Your task to perform on an android device: Go to internet settings Image 0: 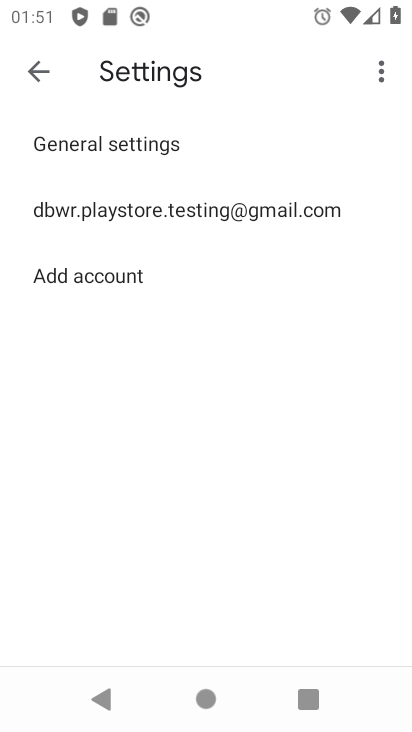
Step 0: press home button
Your task to perform on an android device: Go to internet settings Image 1: 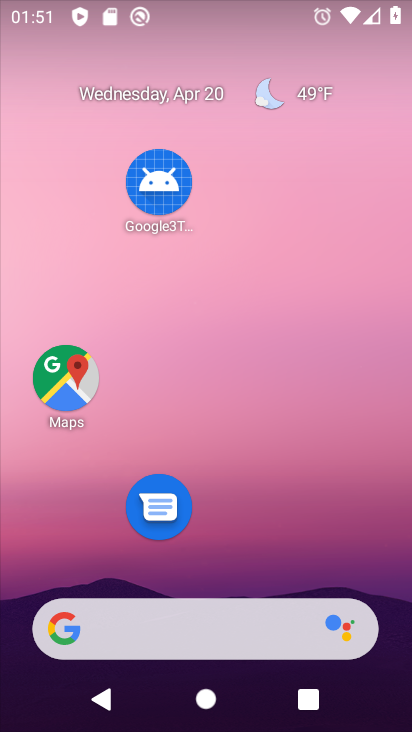
Step 1: drag from (242, 440) to (404, 18)
Your task to perform on an android device: Go to internet settings Image 2: 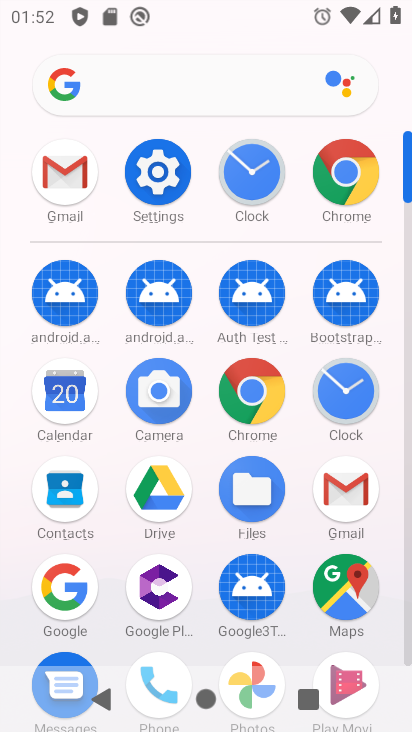
Step 2: click (157, 177)
Your task to perform on an android device: Go to internet settings Image 3: 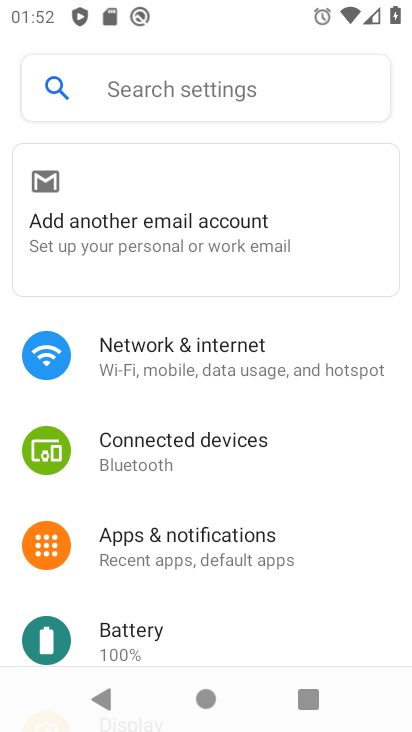
Step 3: click (180, 349)
Your task to perform on an android device: Go to internet settings Image 4: 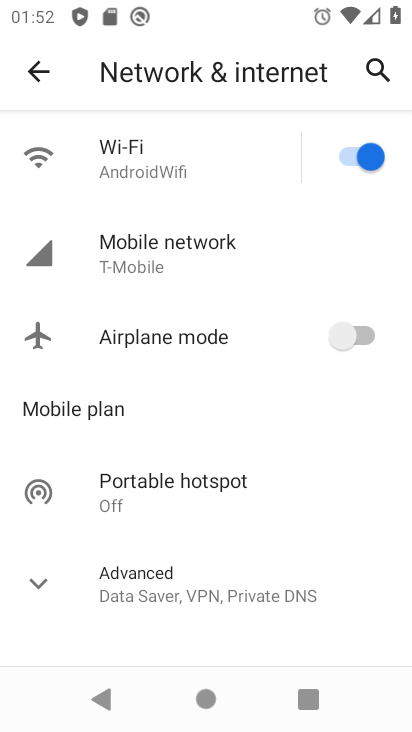
Step 4: click (175, 241)
Your task to perform on an android device: Go to internet settings Image 5: 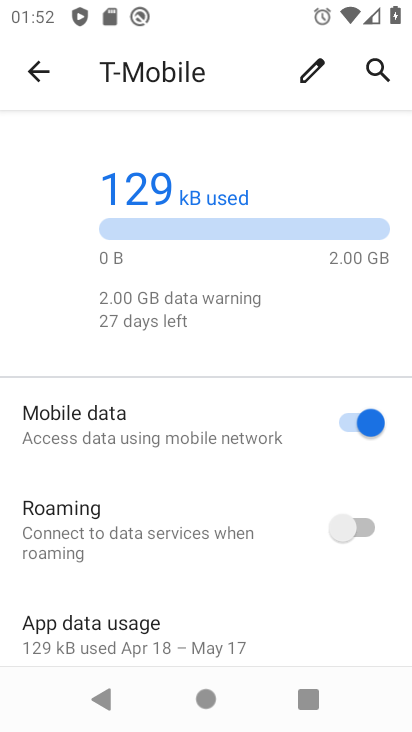
Step 5: task complete